Your task to perform on an android device: change alarm snooze length Image 0: 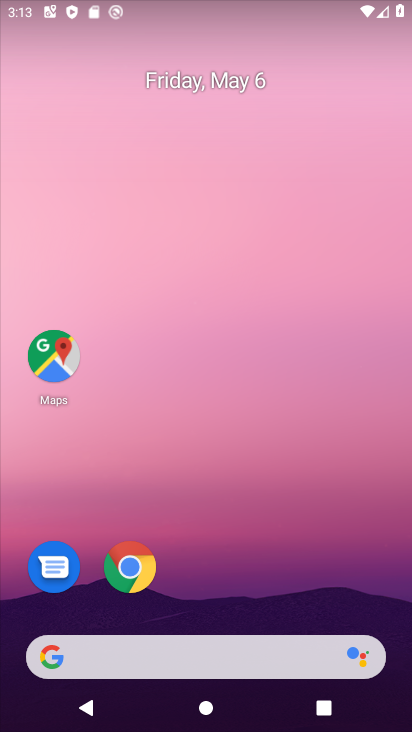
Step 0: drag from (215, 591) to (218, 232)
Your task to perform on an android device: change alarm snooze length Image 1: 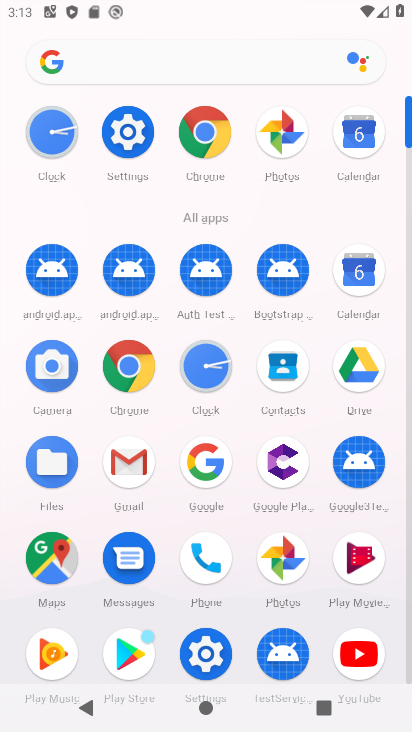
Step 1: click (202, 369)
Your task to perform on an android device: change alarm snooze length Image 2: 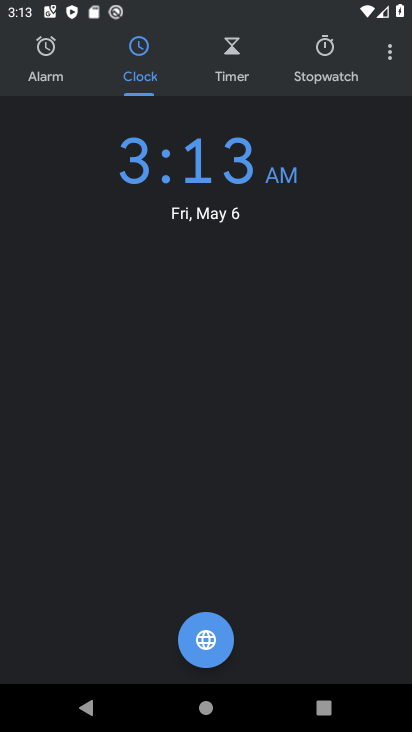
Step 2: click (386, 54)
Your task to perform on an android device: change alarm snooze length Image 3: 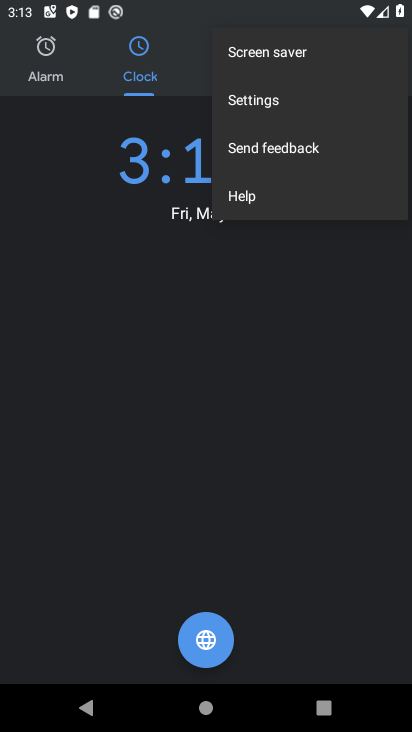
Step 3: click (291, 98)
Your task to perform on an android device: change alarm snooze length Image 4: 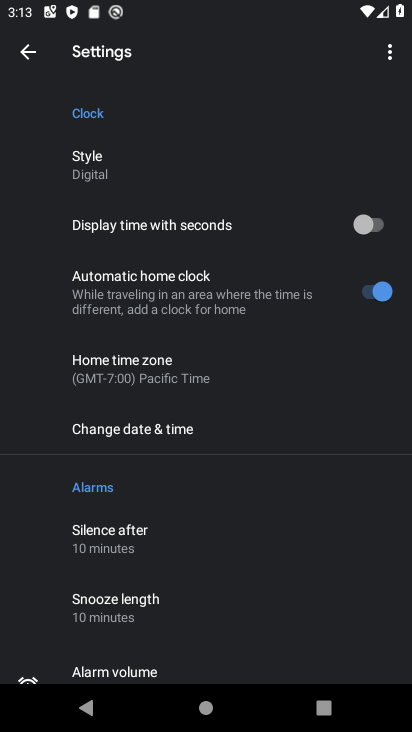
Step 4: drag from (207, 594) to (217, 382)
Your task to perform on an android device: change alarm snooze length Image 5: 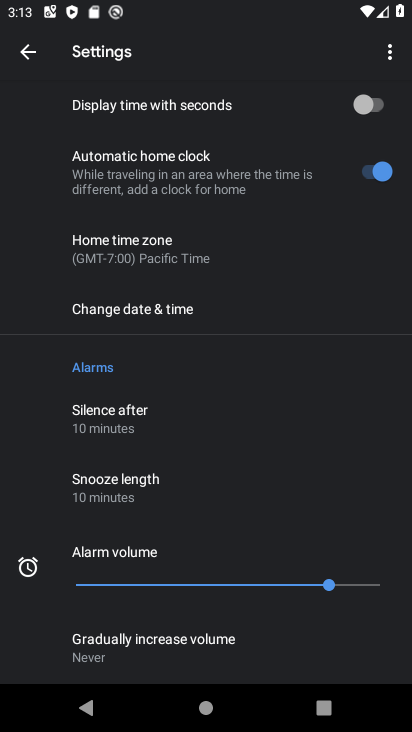
Step 5: drag from (259, 656) to (266, 358)
Your task to perform on an android device: change alarm snooze length Image 6: 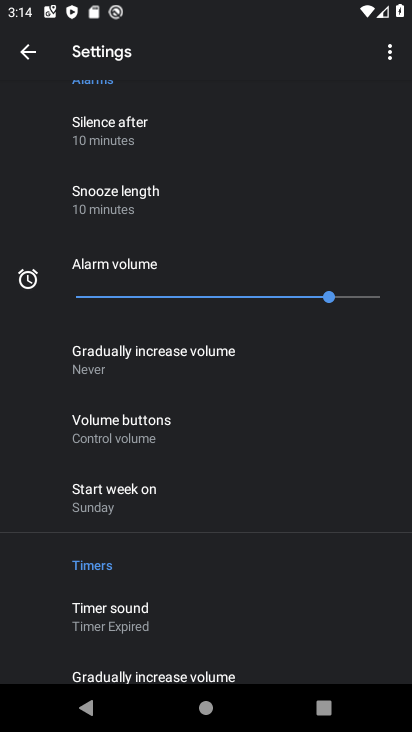
Step 6: drag from (179, 648) to (190, 379)
Your task to perform on an android device: change alarm snooze length Image 7: 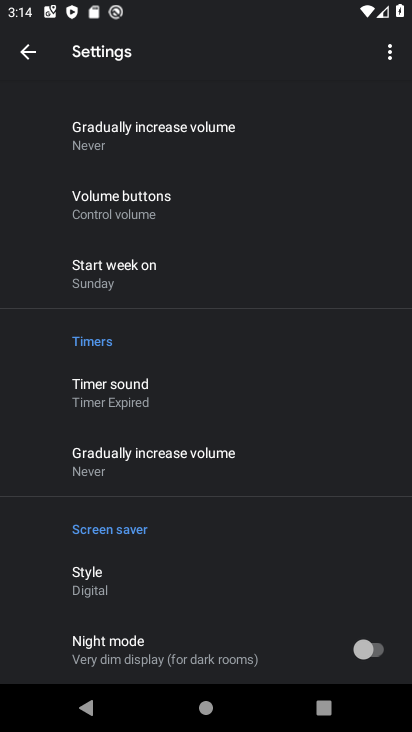
Step 7: drag from (173, 495) to (159, 194)
Your task to perform on an android device: change alarm snooze length Image 8: 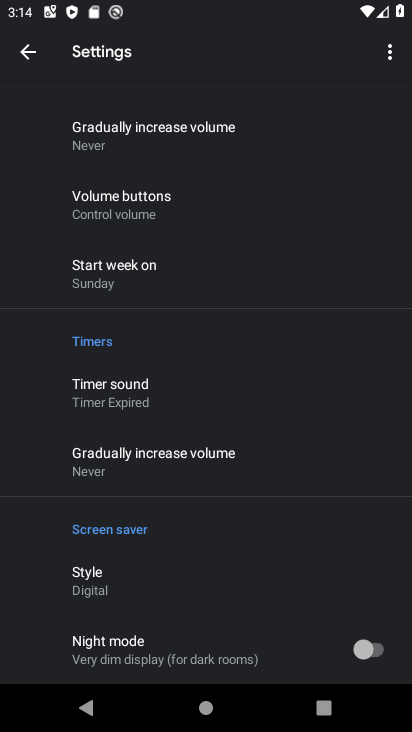
Step 8: drag from (164, 264) to (184, 504)
Your task to perform on an android device: change alarm snooze length Image 9: 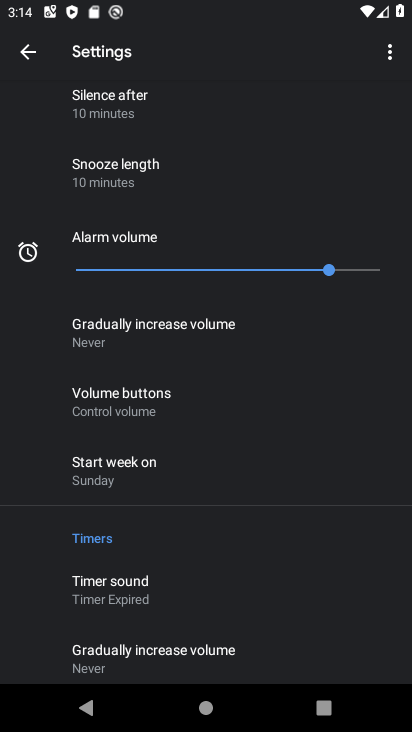
Step 9: click (135, 182)
Your task to perform on an android device: change alarm snooze length Image 10: 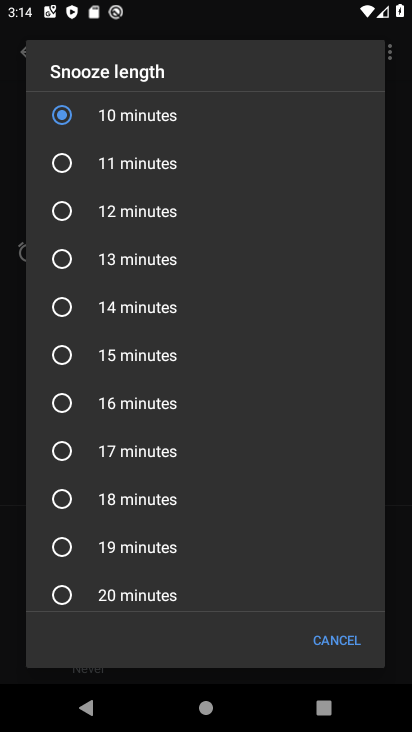
Step 10: click (130, 170)
Your task to perform on an android device: change alarm snooze length Image 11: 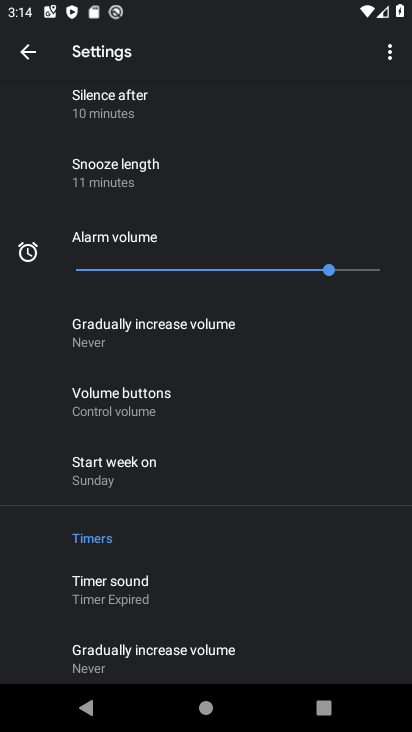
Step 11: task complete